Your task to perform on an android device: check storage Image 0: 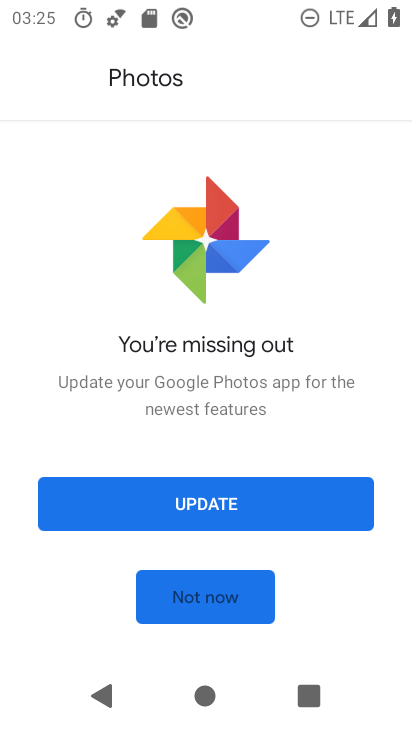
Step 0: press back button
Your task to perform on an android device: check storage Image 1: 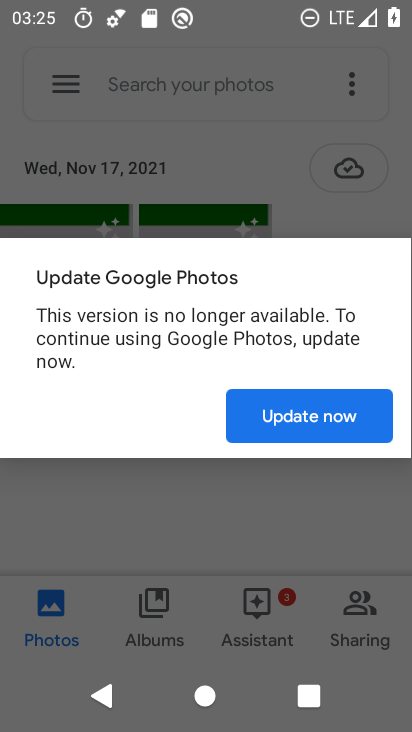
Step 1: press home button
Your task to perform on an android device: check storage Image 2: 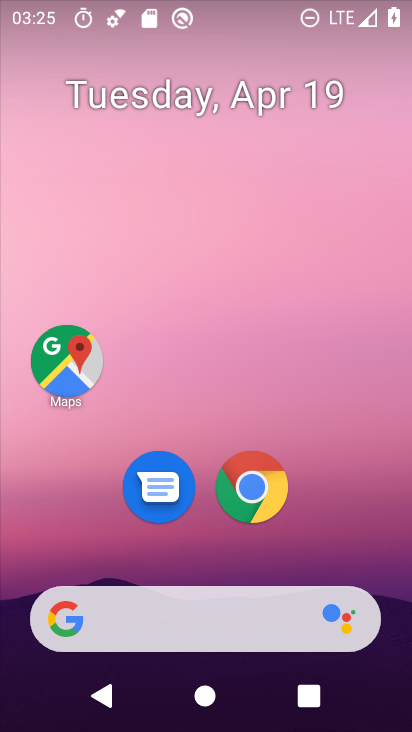
Step 2: drag from (180, 576) to (275, 58)
Your task to perform on an android device: check storage Image 3: 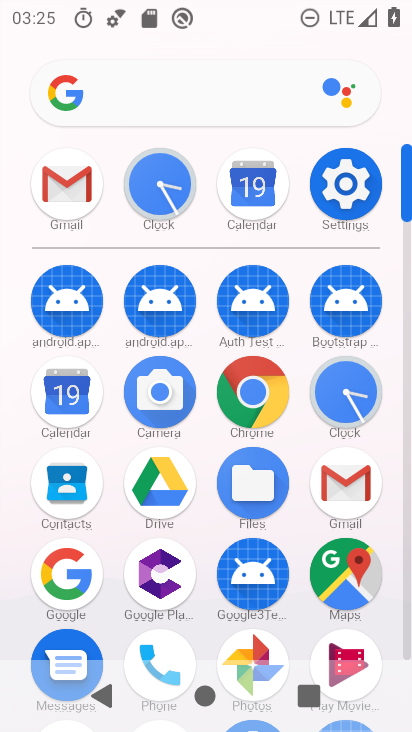
Step 3: click (346, 187)
Your task to perform on an android device: check storage Image 4: 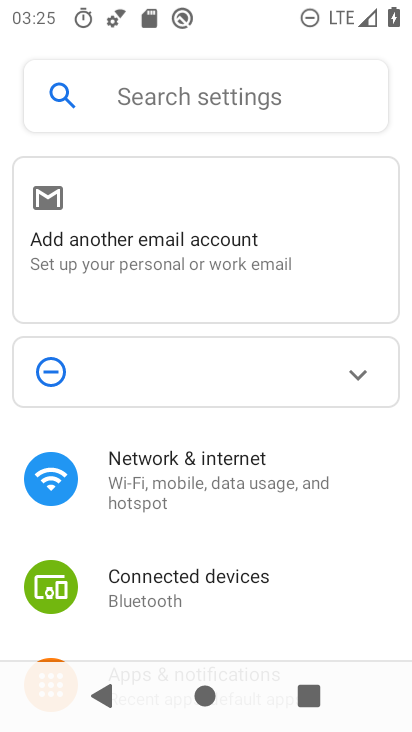
Step 4: drag from (151, 584) to (287, 59)
Your task to perform on an android device: check storage Image 5: 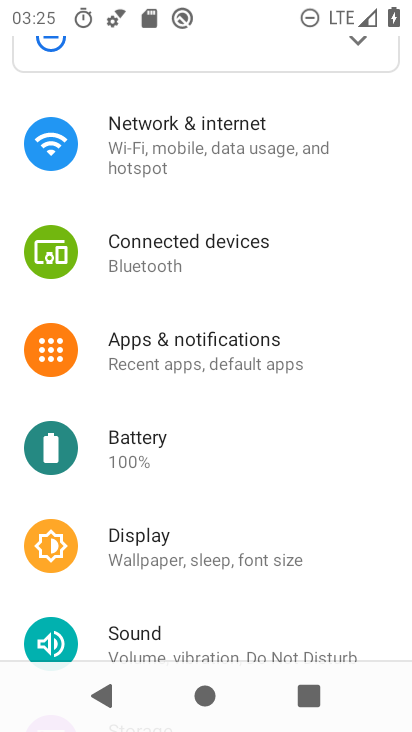
Step 5: drag from (201, 546) to (291, 83)
Your task to perform on an android device: check storage Image 6: 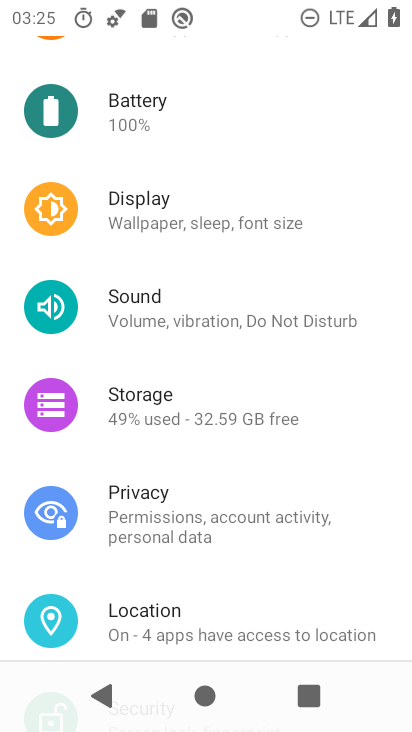
Step 6: click (183, 417)
Your task to perform on an android device: check storage Image 7: 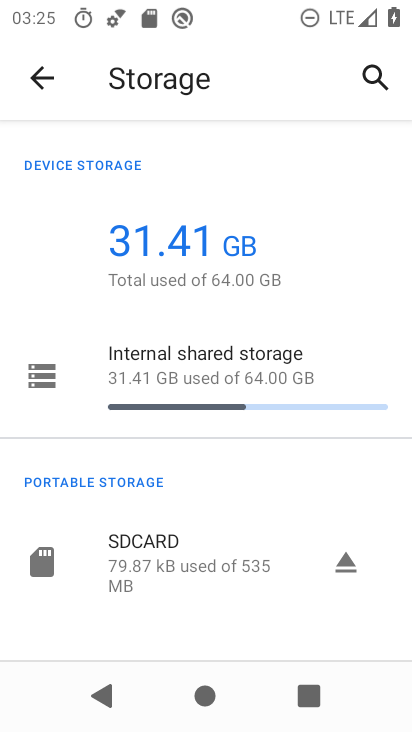
Step 7: task complete